Your task to perform on an android device: Open calendar and show me the second week of next month Image 0: 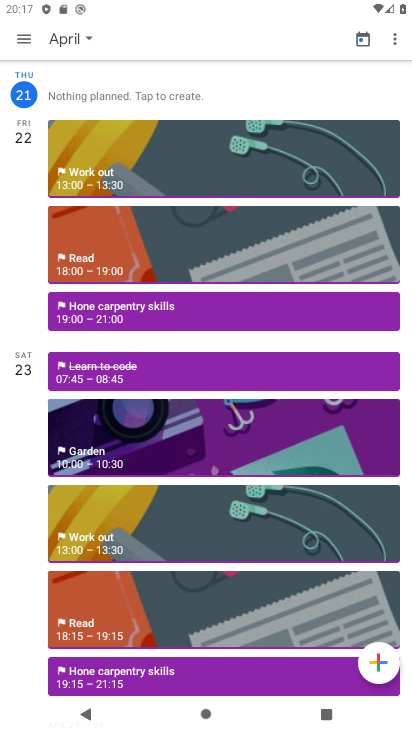
Step 0: press home button
Your task to perform on an android device: Open calendar and show me the second week of next month Image 1: 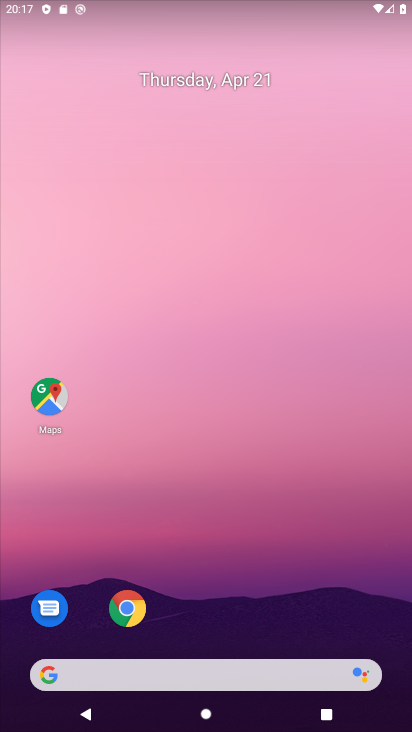
Step 1: click (169, 80)
Your task to perform on an android device: Open calendar and show me the second week of next month Image 2: 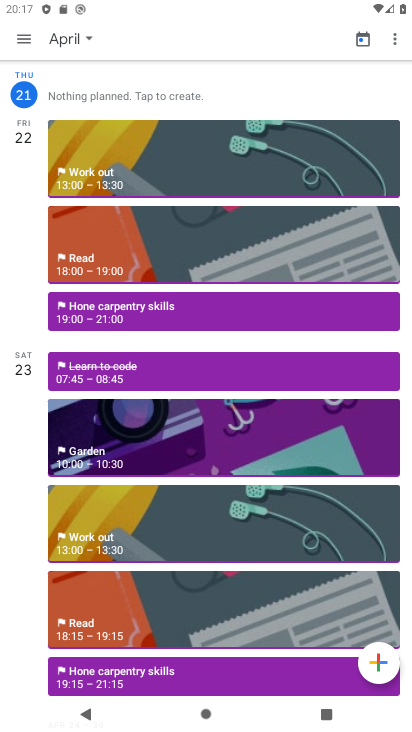
Step 2: click (72, 48)
Your task to perform on an android device: Open calendar and show me the second week of next month Image 3: 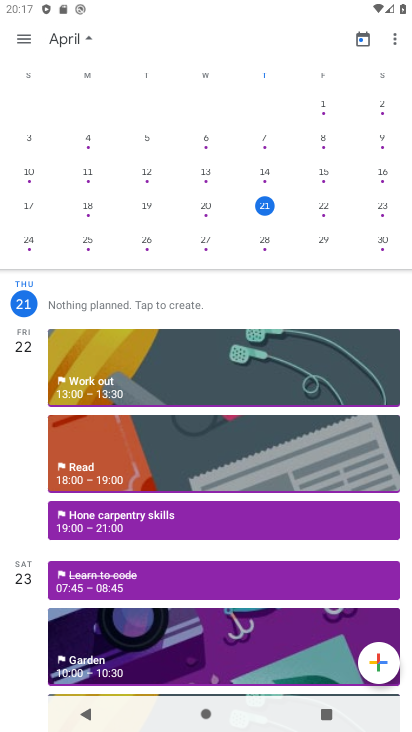
Step 3: drag from (393, 141) to (3, 148)
Your task to perform on an android device: Open calendar and show me the second week of next month Image 4: 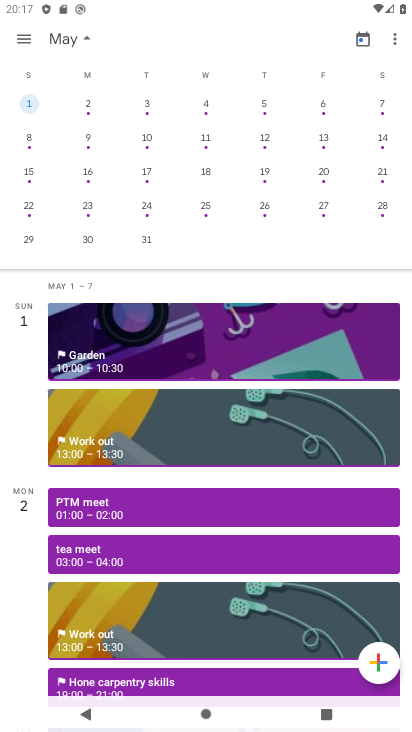
Step 4: click (158, 139)
Your task to perform on an android device: Open calendar and show me the second week of next month Image 5: 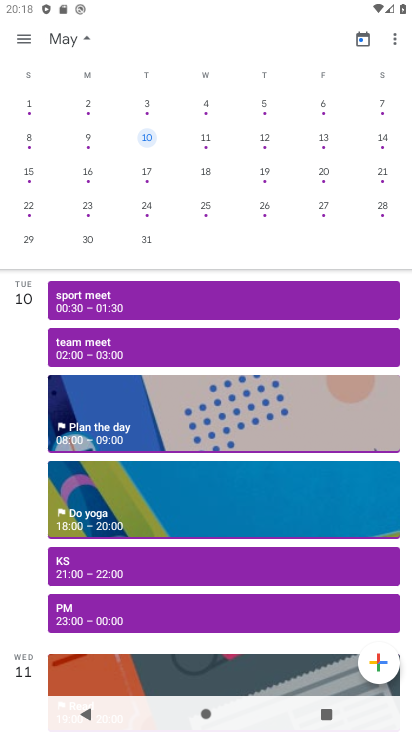
Step 5: task complete